Your task to perform on an android device: What's the weather going to be tomorrow? Image 0: 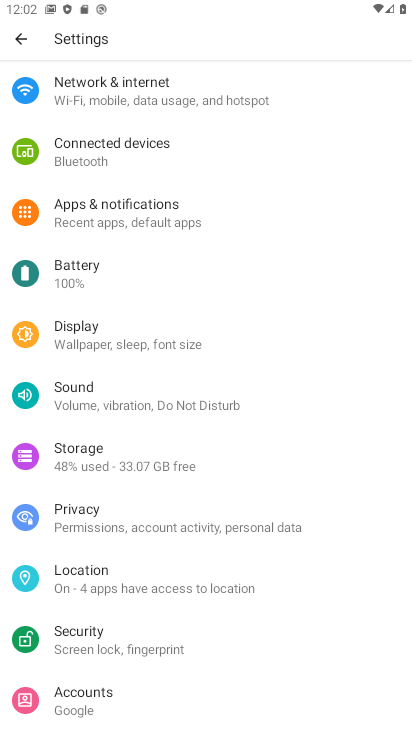
Step 0: press home button
Your task to perform on an android device: What's the weather going to be tomorrow? Image 1: 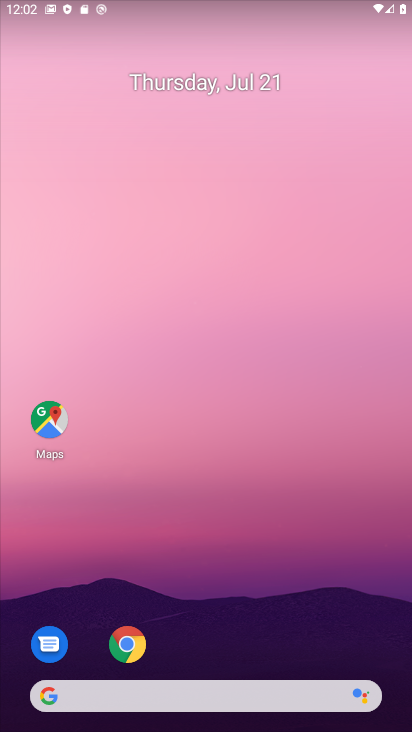
Step 1: click (202, 686)
Your task to perform on an android device: What's the weather going to be tomorrow? Image 2: 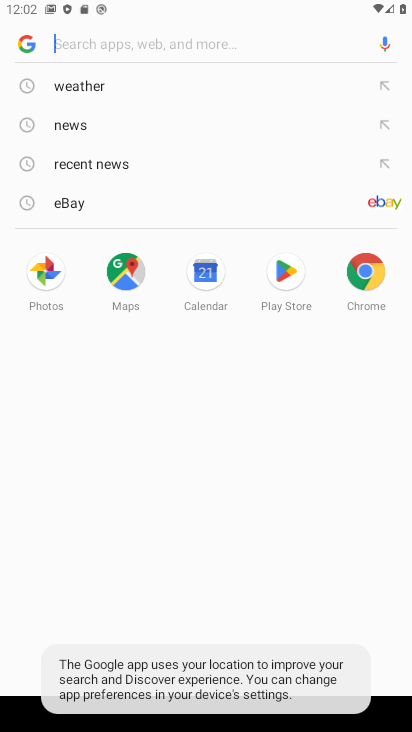
Step 2: click (109, 90)
Your task to perform on an android device: What's the weather going to be tomorrow? Image 3: 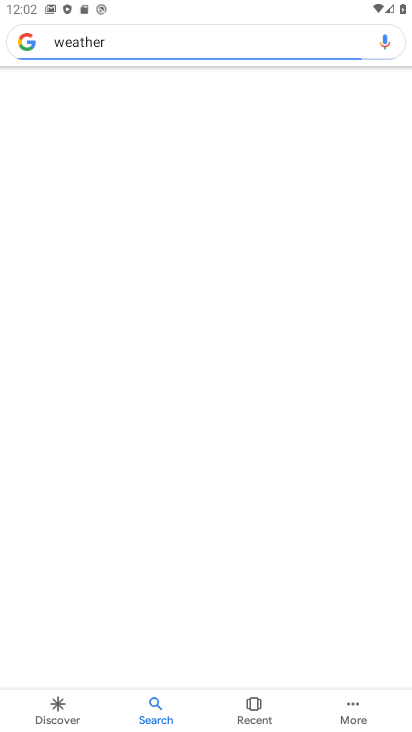
Step 3: task complete